Your task to perform on an android device: open sync settings in chrome Image 0: 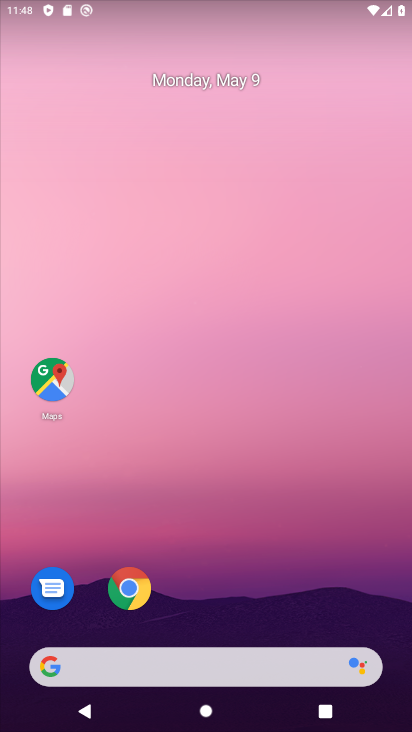
Step 0: click (126, 580)
Your task to perform on an android device: open sync settings in chrome Image 1: 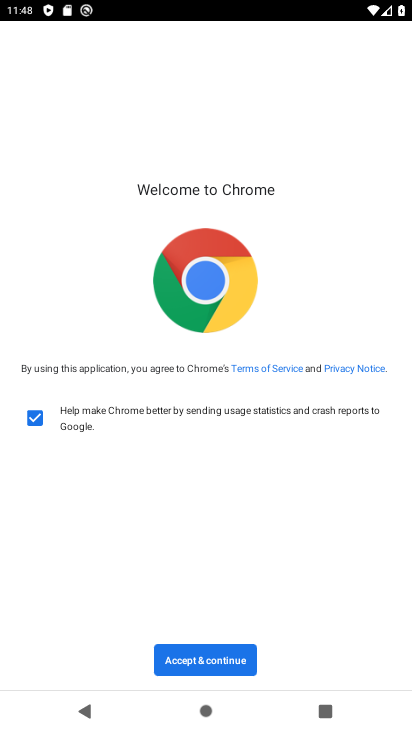
Step 1: click (225, 658)
Your task to perform on an android device: open sync settings in chrome Image 2: 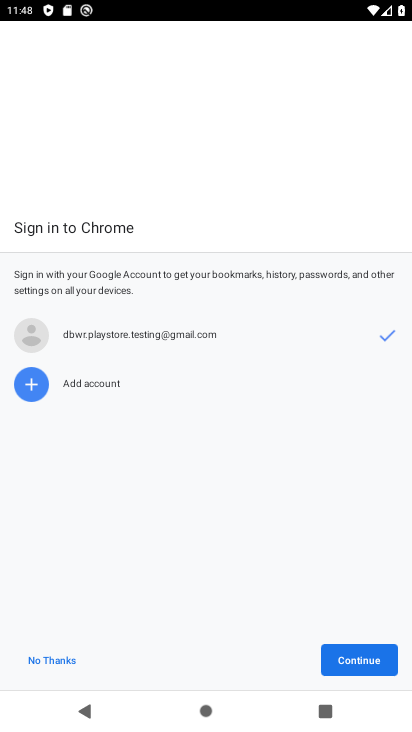
Step 2: click (363, 652)
Your task to perform on an android device: open sync settings in chrome Image 3: 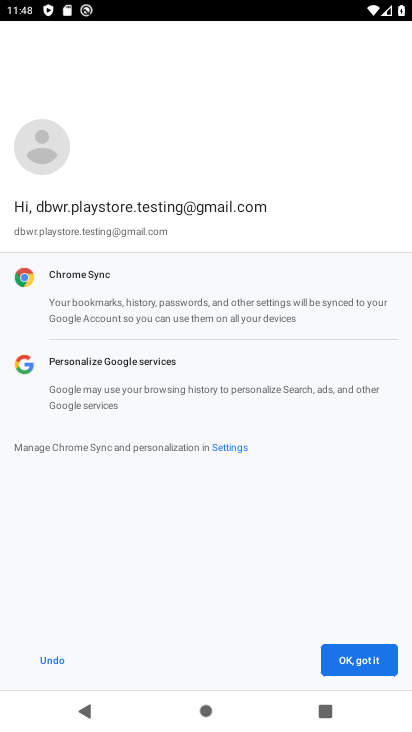
Step 3: click (368, 657)
Your task to perform on an android device: open sync settings in chrome Image 4: 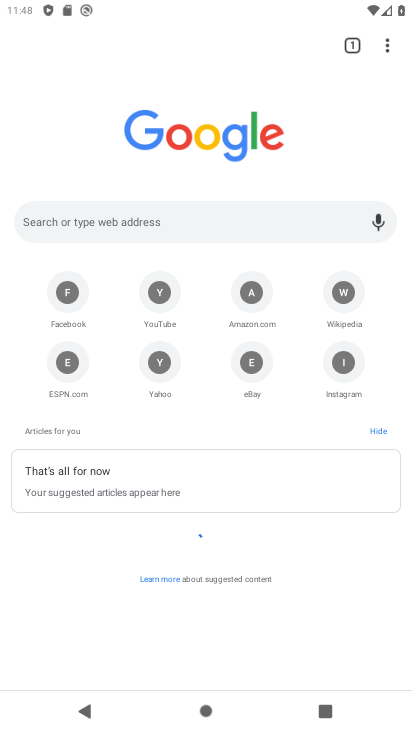
Step 4: click (385, 46)
Your task to perform on an android device: open sync settings in chrome Image 5: 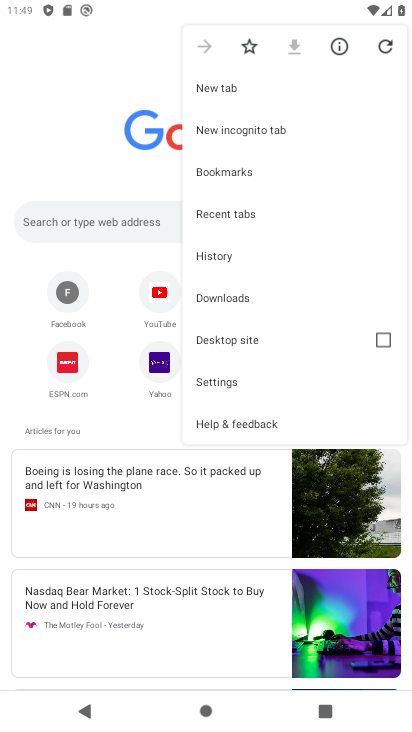
Step 5: click (238, 372)
Your task to perform on an android device: open sync settings in chrome Image 6: 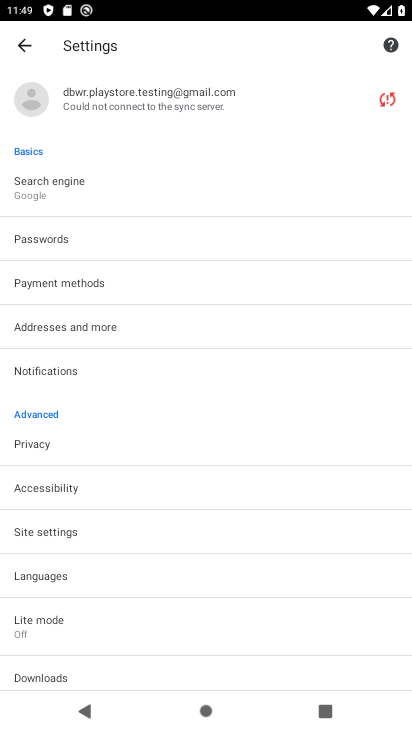
Step 6: click (149, 103)
Your task to perform on an android device: open sync settings in chrome Image 7: 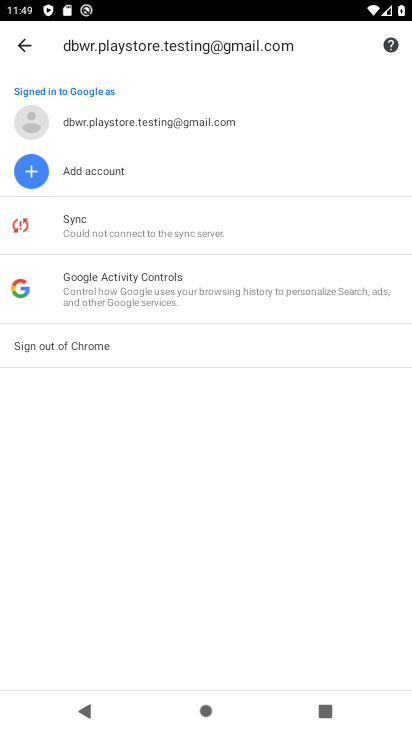
Step 7: click (120, 215)
Your task to perform on an android device: open sync settings in chrome Image 8: 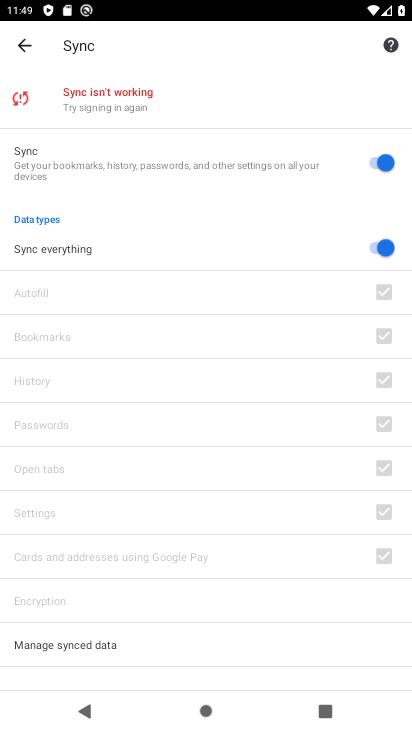
Step 8: task complete